Your task to perform on an android device: Open calendar and show me the second week of next month Image 0: 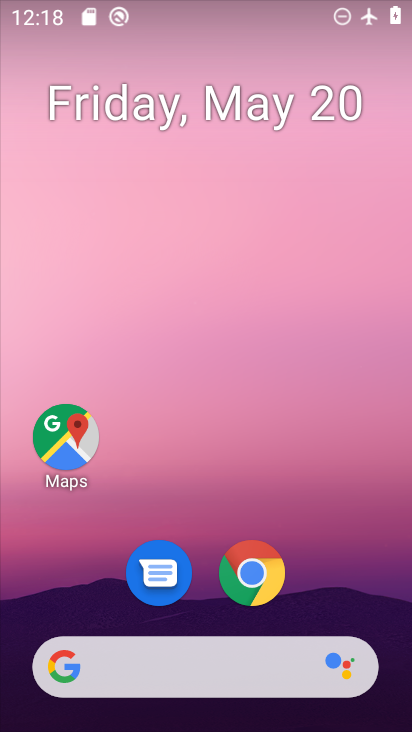
Step 0: drag from (213, 725) to (176, 169)
Your task to perform on an android device: Open calendar and show me the second week of next month Image 1: 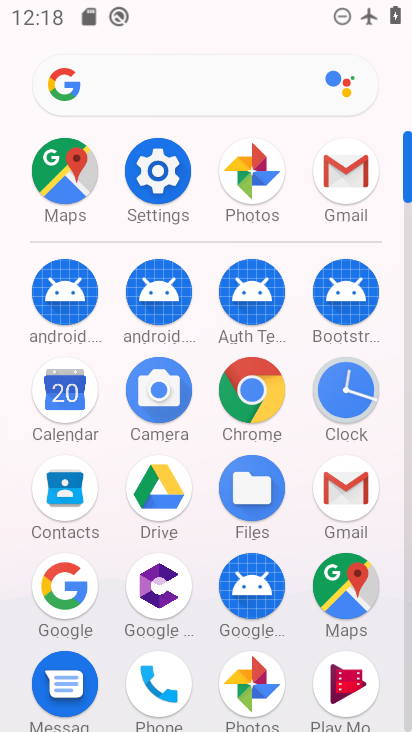
Step 1: click (63, 398)
Your task to perform on an android device: Open calendar and show me the second week of next month Image 2: 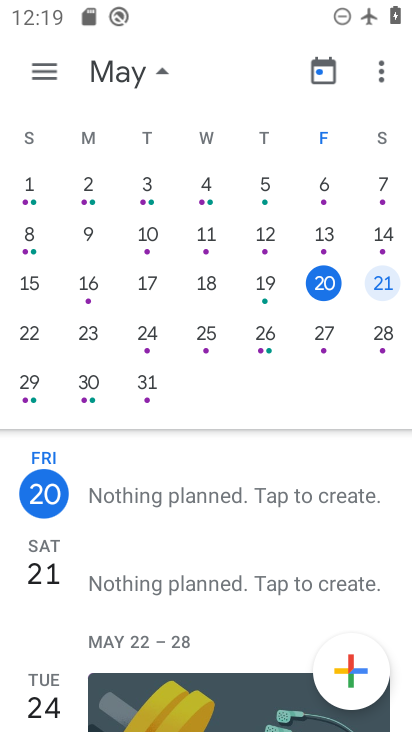
Step 2: drag from (331, 265) to (7, 233)
Your task to perform on an android device: Open calendar and show me the second week of next month Image 3: 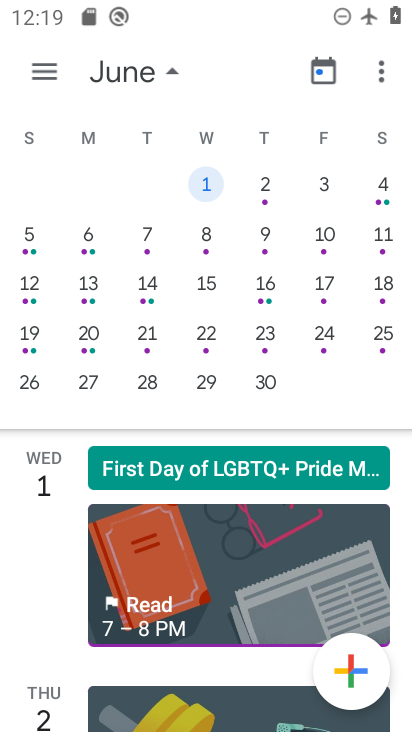
Step 3: click (79, 279)
Your task to perform on an android device: Open calendar and show me the second week of next month Image 4: 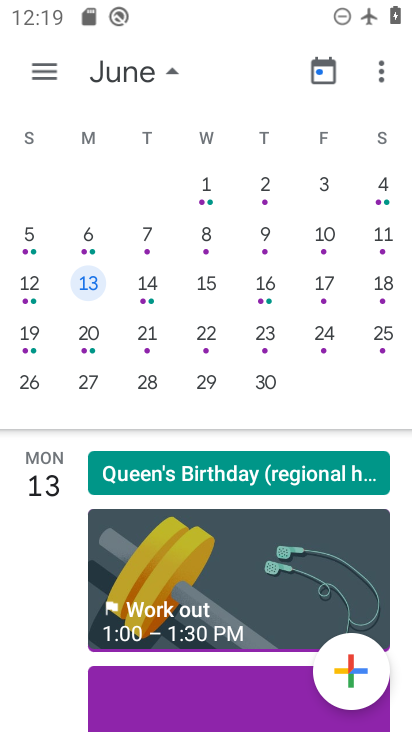
Step 4: click (43, 73)
Your task to perform on an android device: Open calendar and show me the second week of next month Image 5: 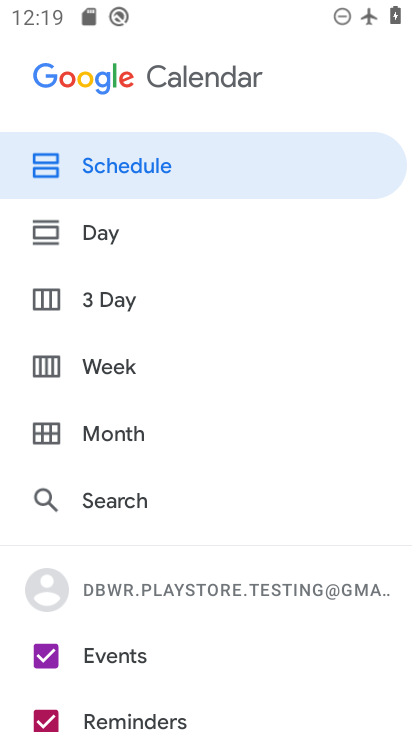
Step 5: click (92, 376)
Your task to perform on an android device: Open calendar and show me the second week of next month Image 6: 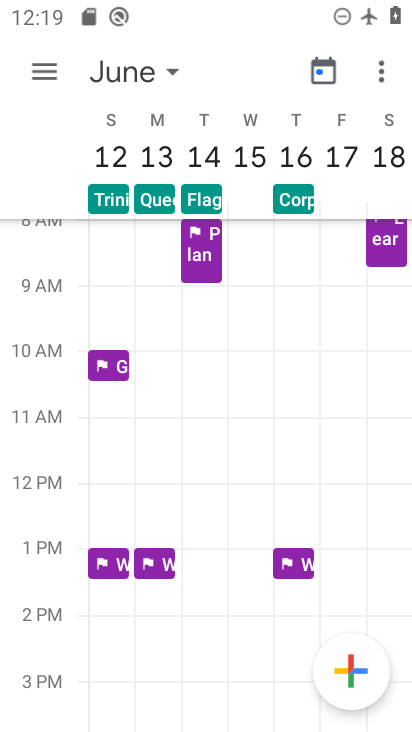
Step 6: task complete